Your task to perform on an android device: open sync settings in chrome Image 0: 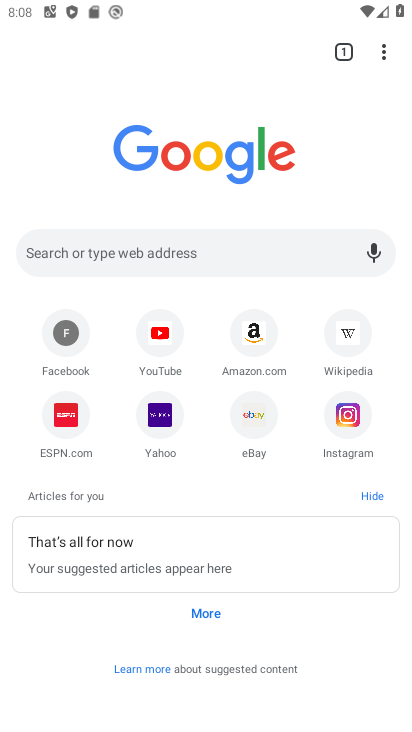
Step 0: click (394, 54)
Your task to perform on an android device: open sync settings in chrome Image 1: 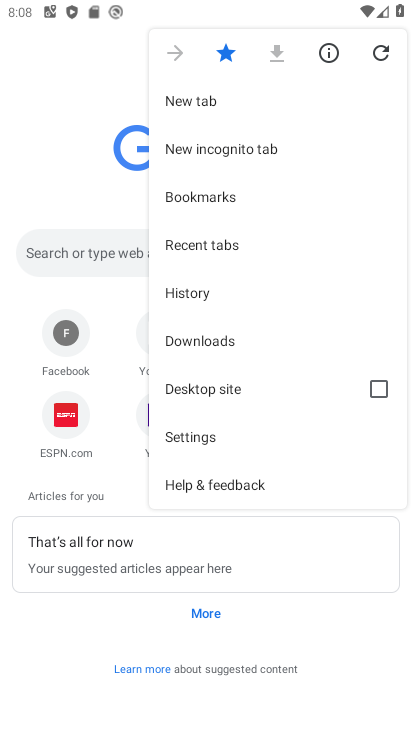
Step 1: click (220, 438)
Your task to perform on an android device: open sync settings in chrome Image 2: 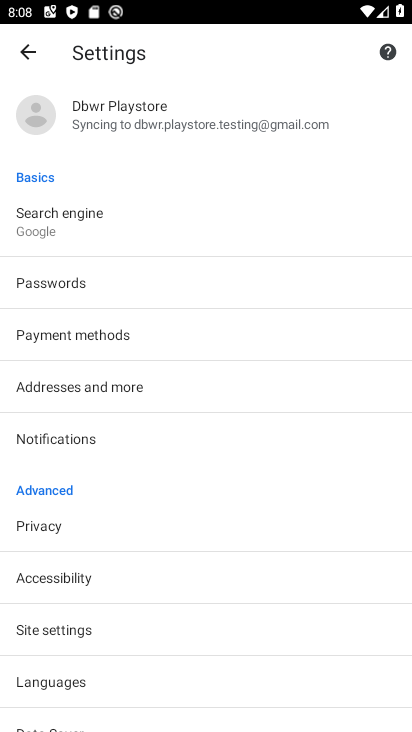
Step 2: click (278, 130)
Your task to perform on an android device: open sync settings in chrome Image 3: 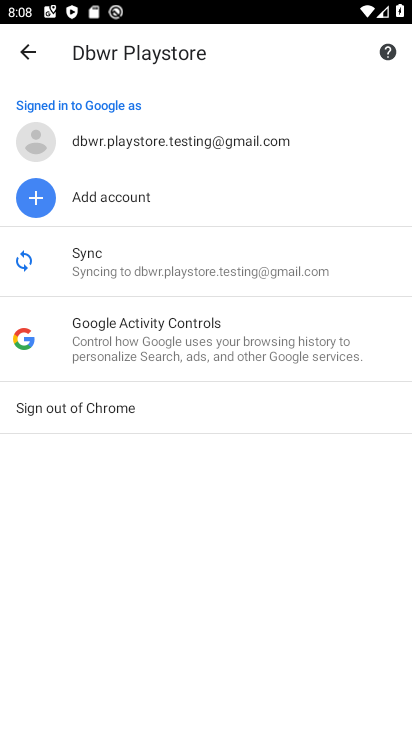
Step 3: click (285, 257)
Your task to perform on an android device: open sync settings in chrome Image 4: 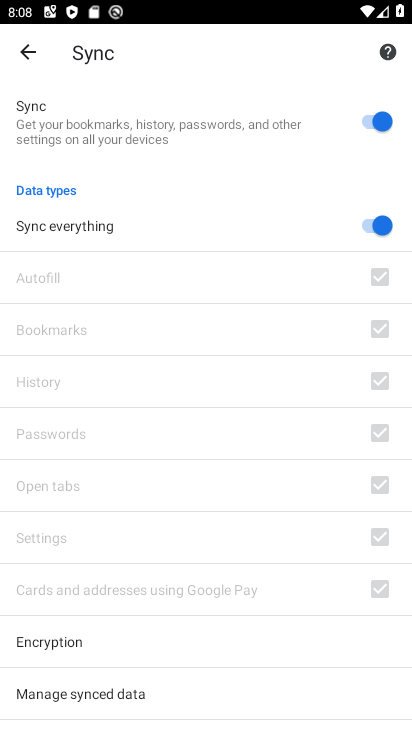
Step 4: task complete